Your task to perform on an android device: find which apps use the phone's location Image 0: 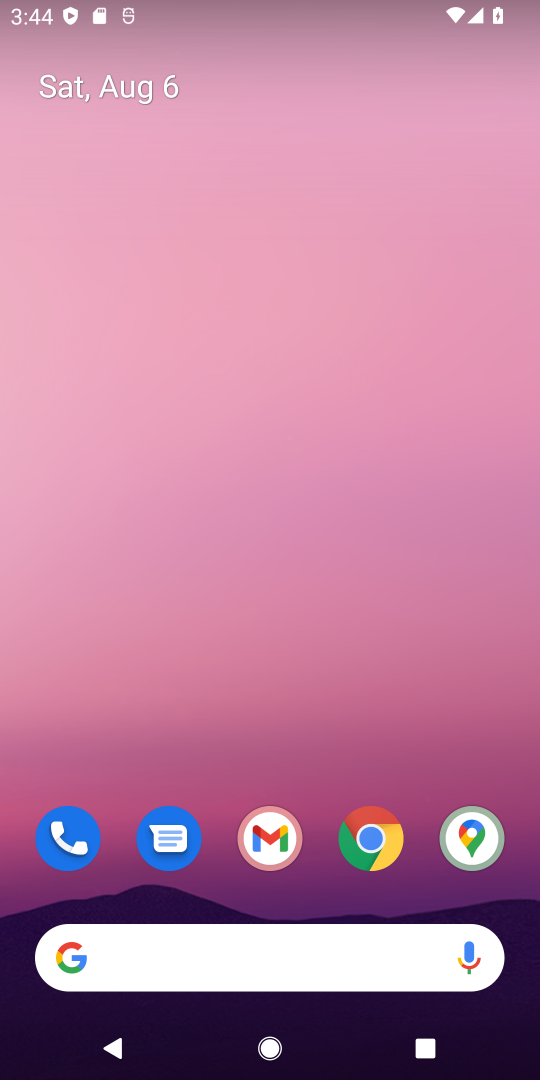
Step 0: drag from (260, 931) to (219, 117)
Your task to perform on an android device: find which apps use the phone's location Image 1: 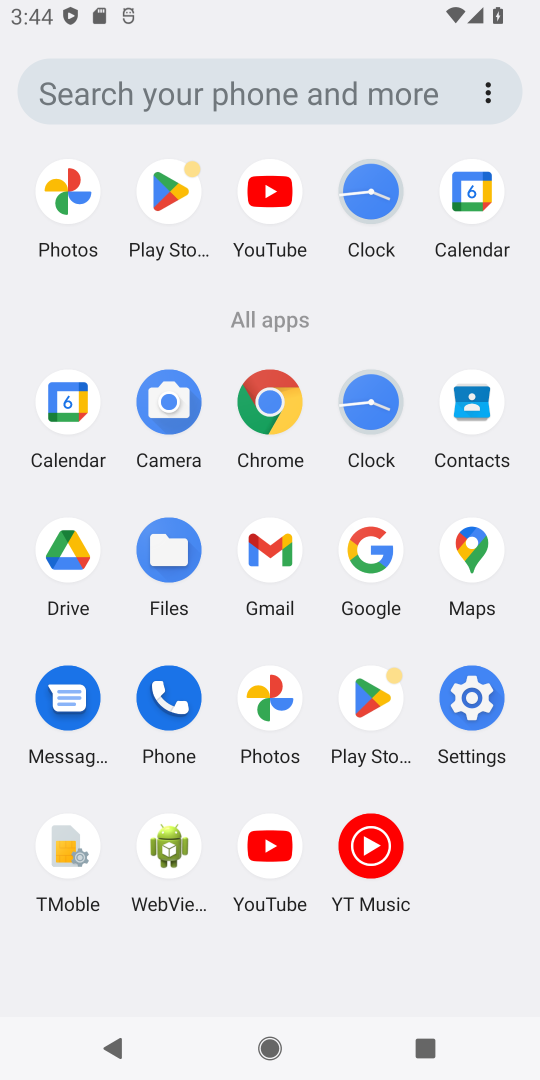
Step 1: click (475, 686)
Your task to perform on an android device: find which apps use the phone's location Image 2: 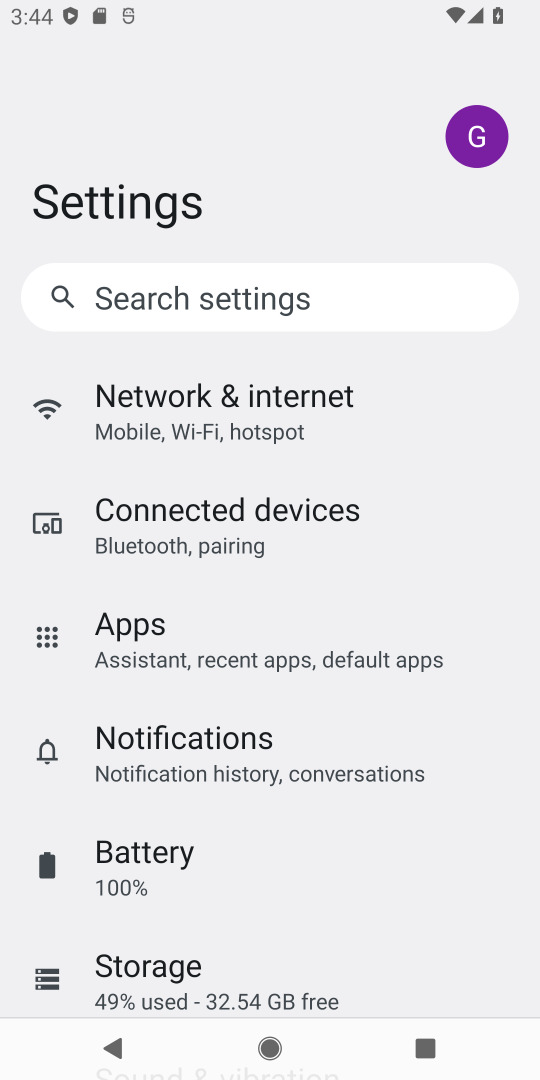
Step 2: drag from (462, 951) to (488, 370)
Your task to perform on an android device: find which apps use the phone's location Image 3: 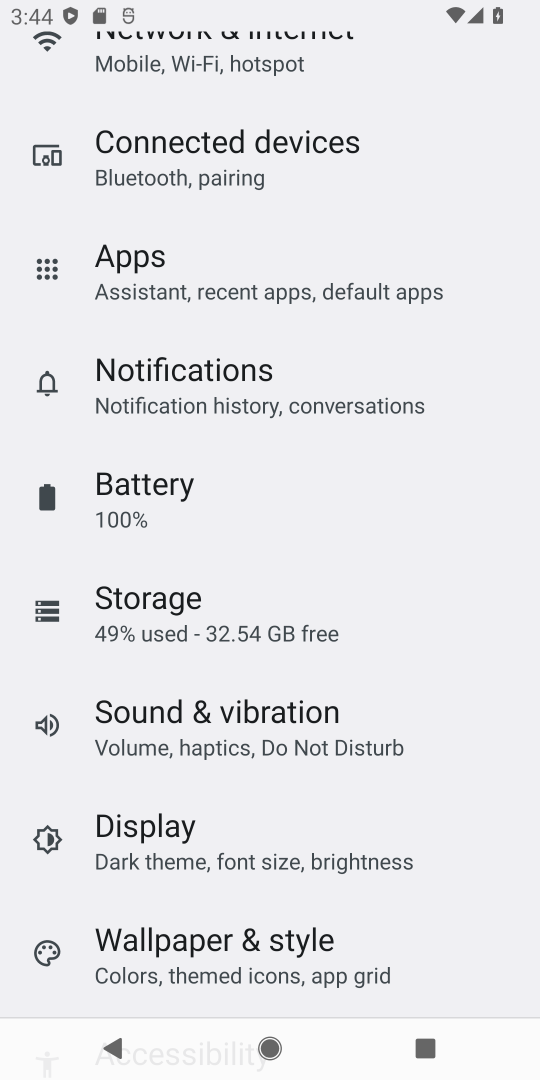
Step 3: drag from (484, 880) to (384, 295)
Your task to perform on an android device: find which apps use the phone's location Image 4: 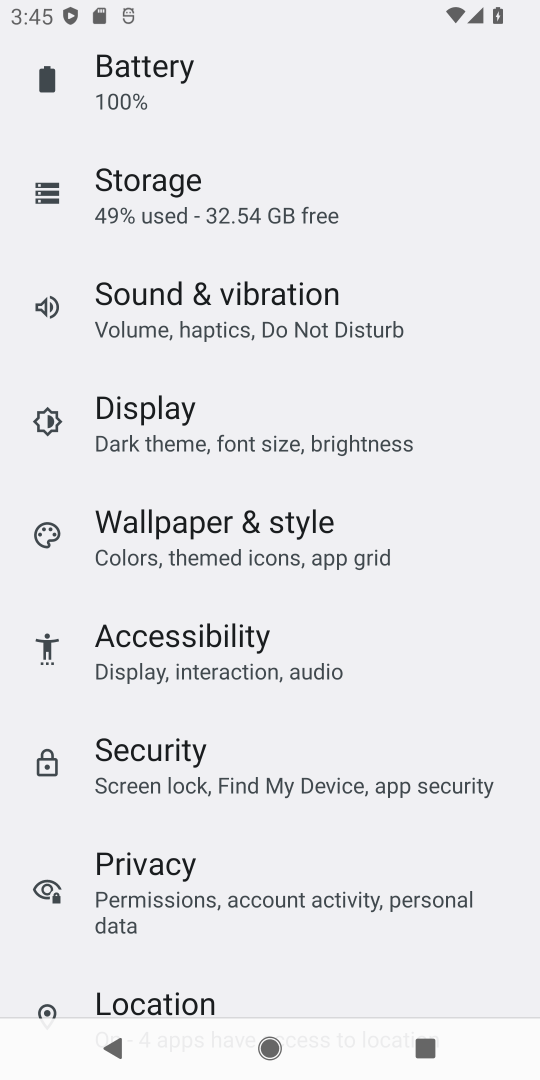
Step 4: click (188, 994)
Your task to perform on an android device: find which apps use the phone's location Image 5: 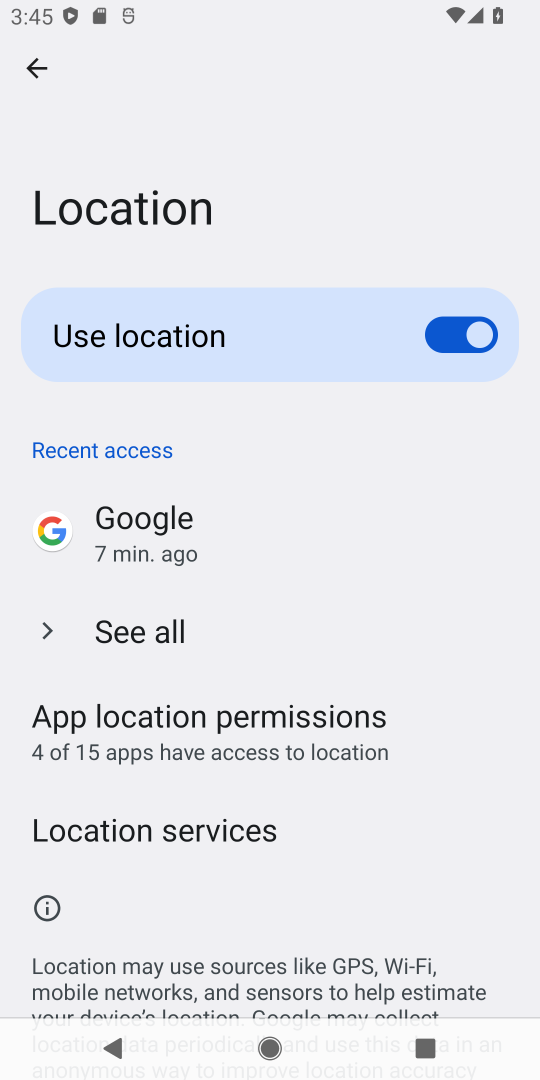
Step 5: click (218, 726)
Your task to perform on an android device: find which apps use the phone's location Image 6: 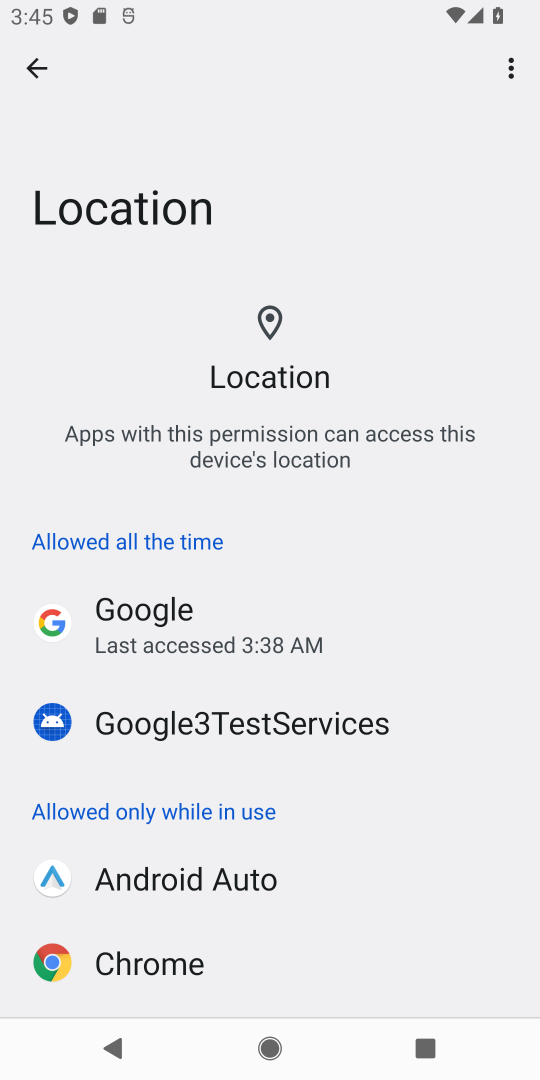
Step 6: task complete